Your task to perform on an android device: turn on sleep mode Image 0: 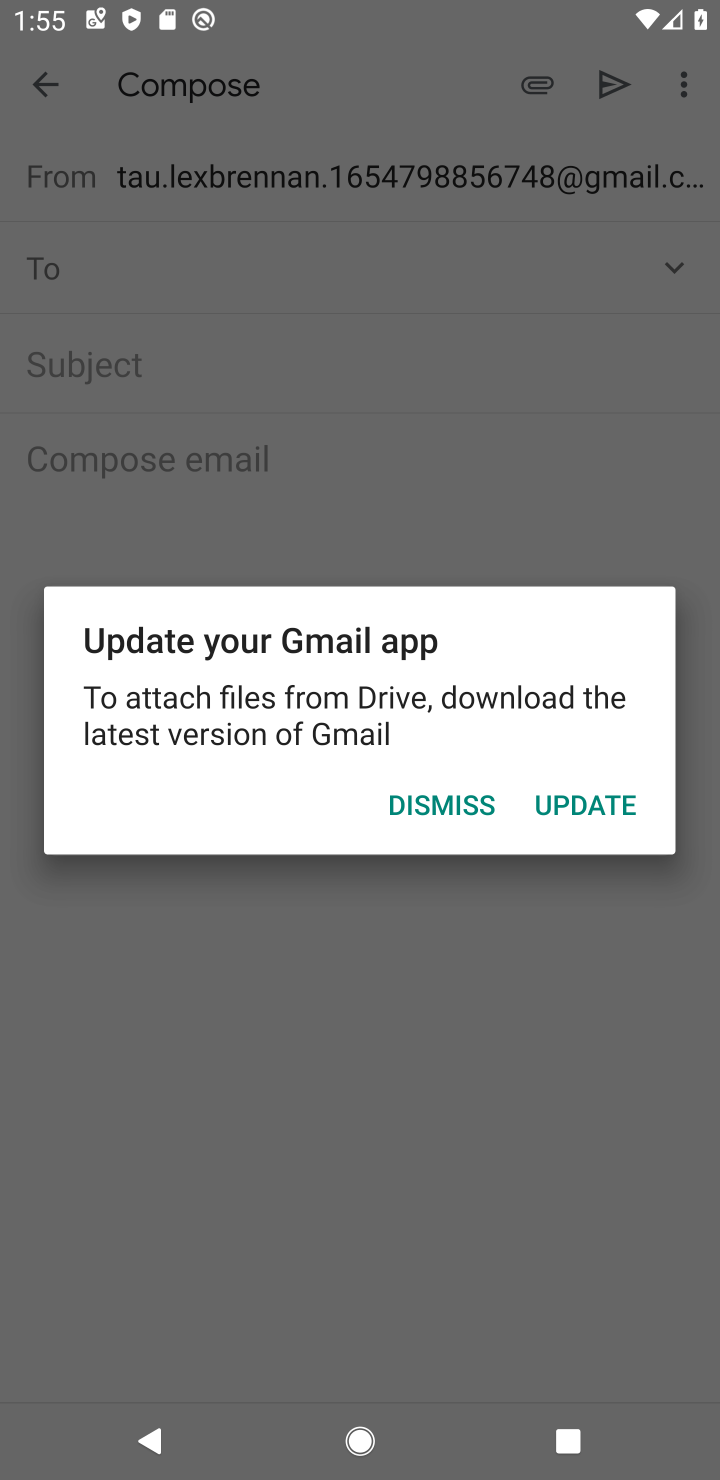
Step 0: press home button
Your task to perform on an android device: turn on sleep mode Image 1: 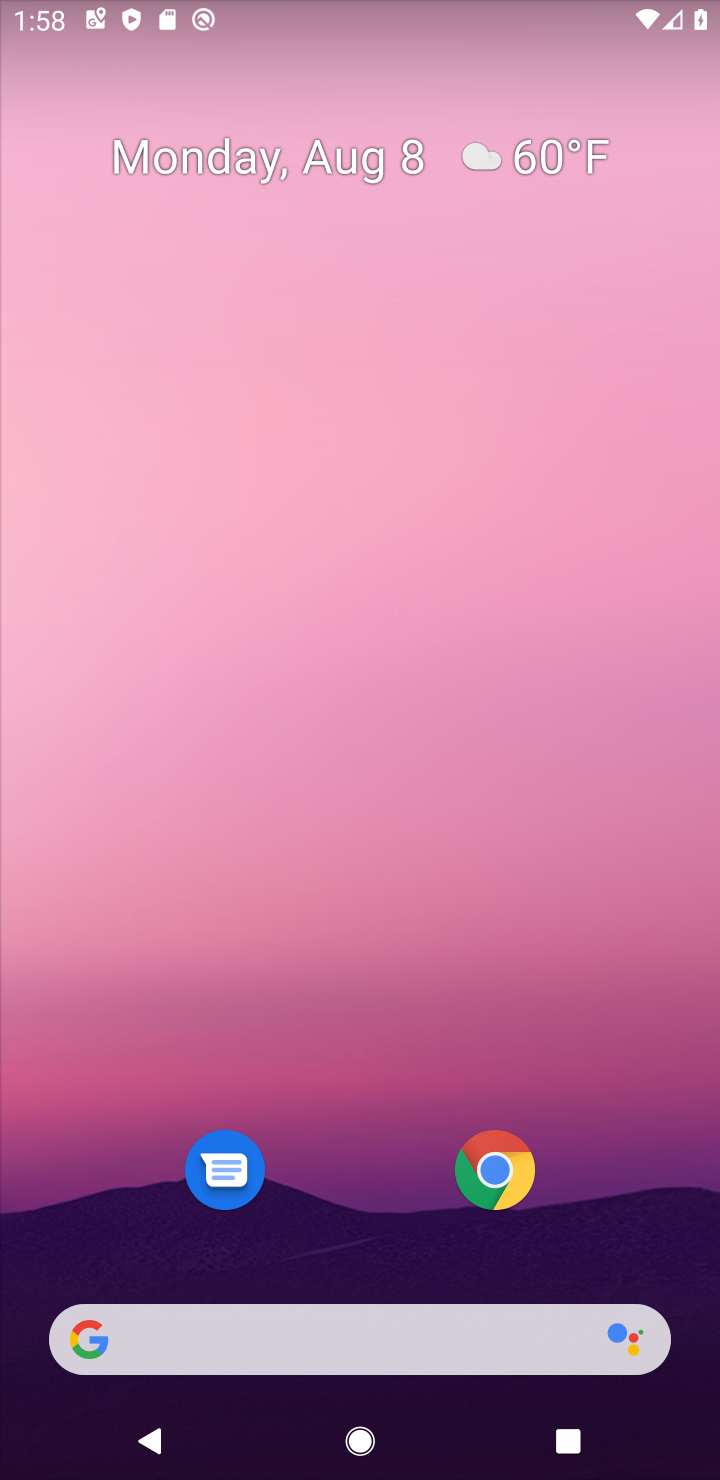
Step 1: drag from (319, 522) to (343, 323)
Your task to perform on an android device: turn on sleep mode Image 2: 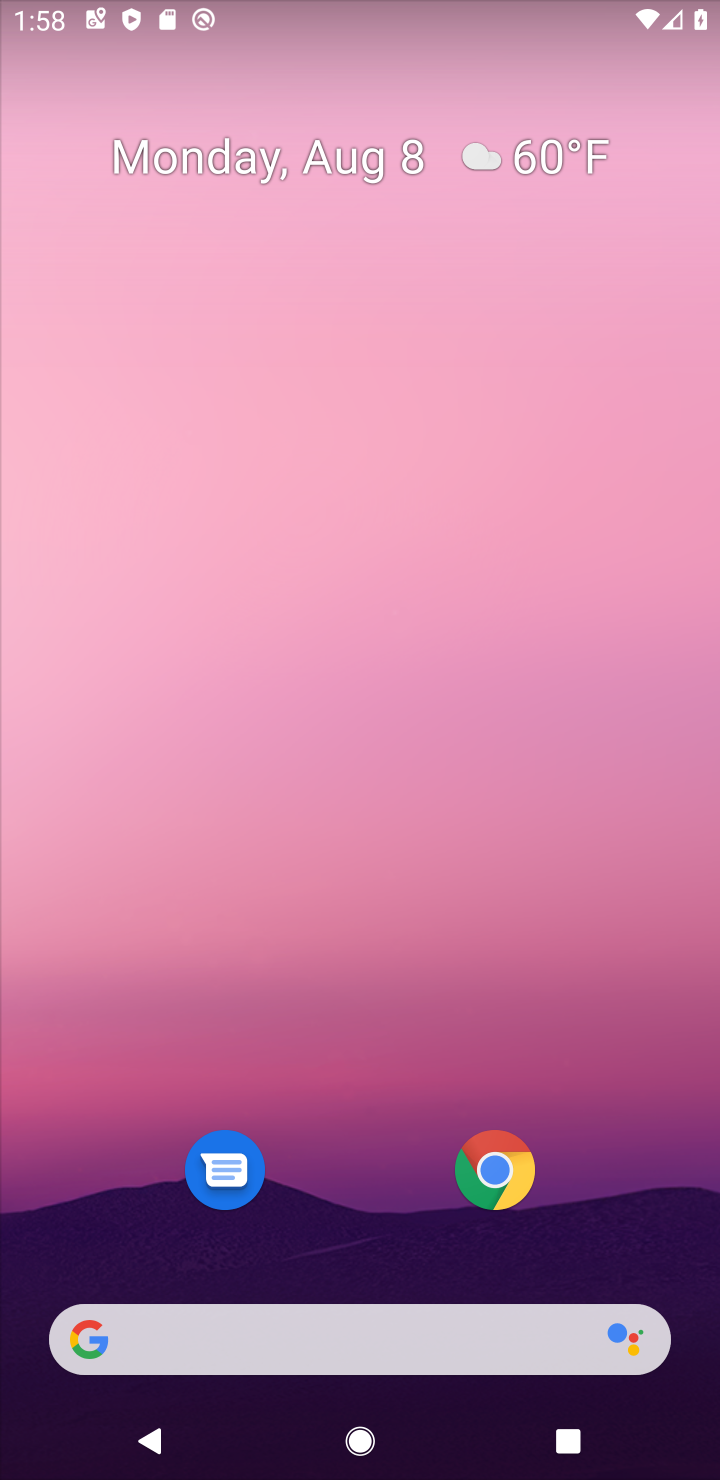
Step 2: drag from (377, 1067) to (323, 104)
Your task to perform on an android device: turn on sleep mode Image 3: 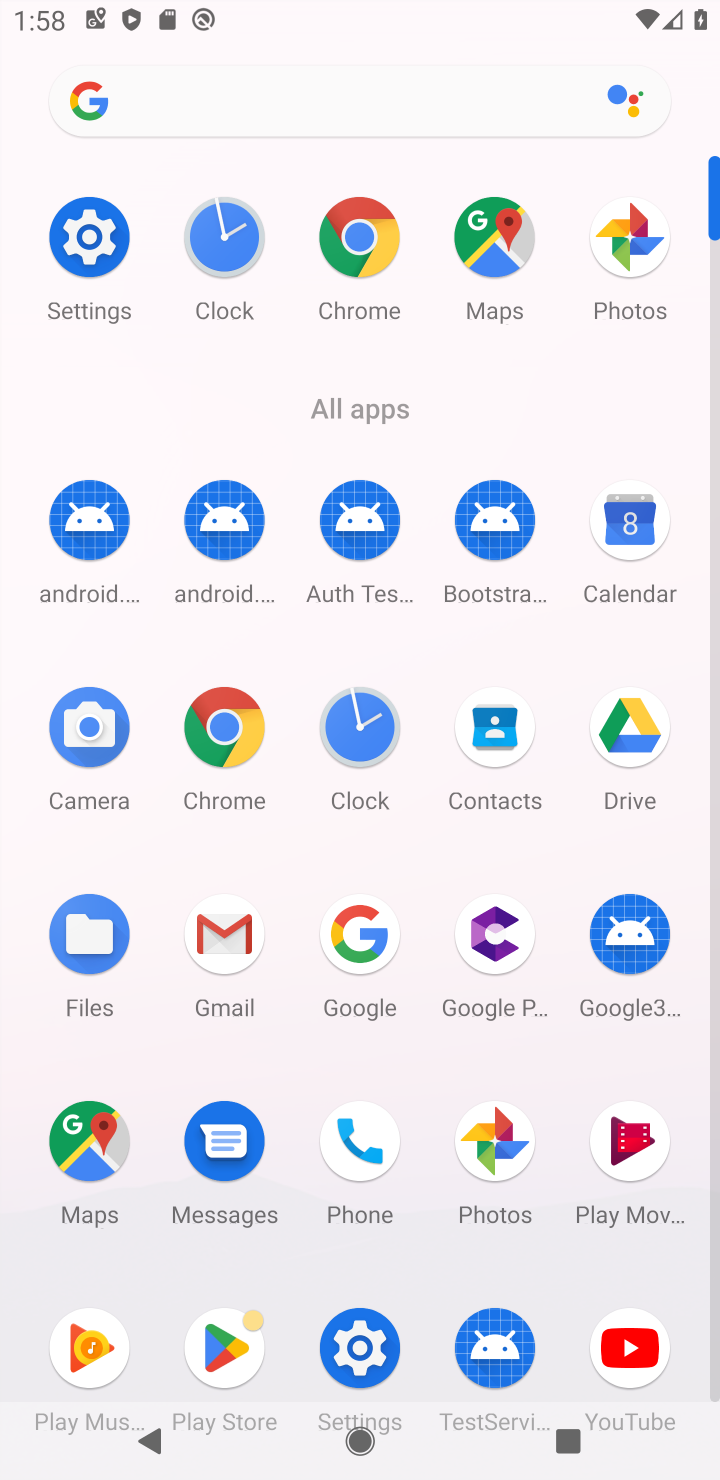
Step 3: click (94, 283)
Your task to perform on an android device: turn on sleep mode Image 4: 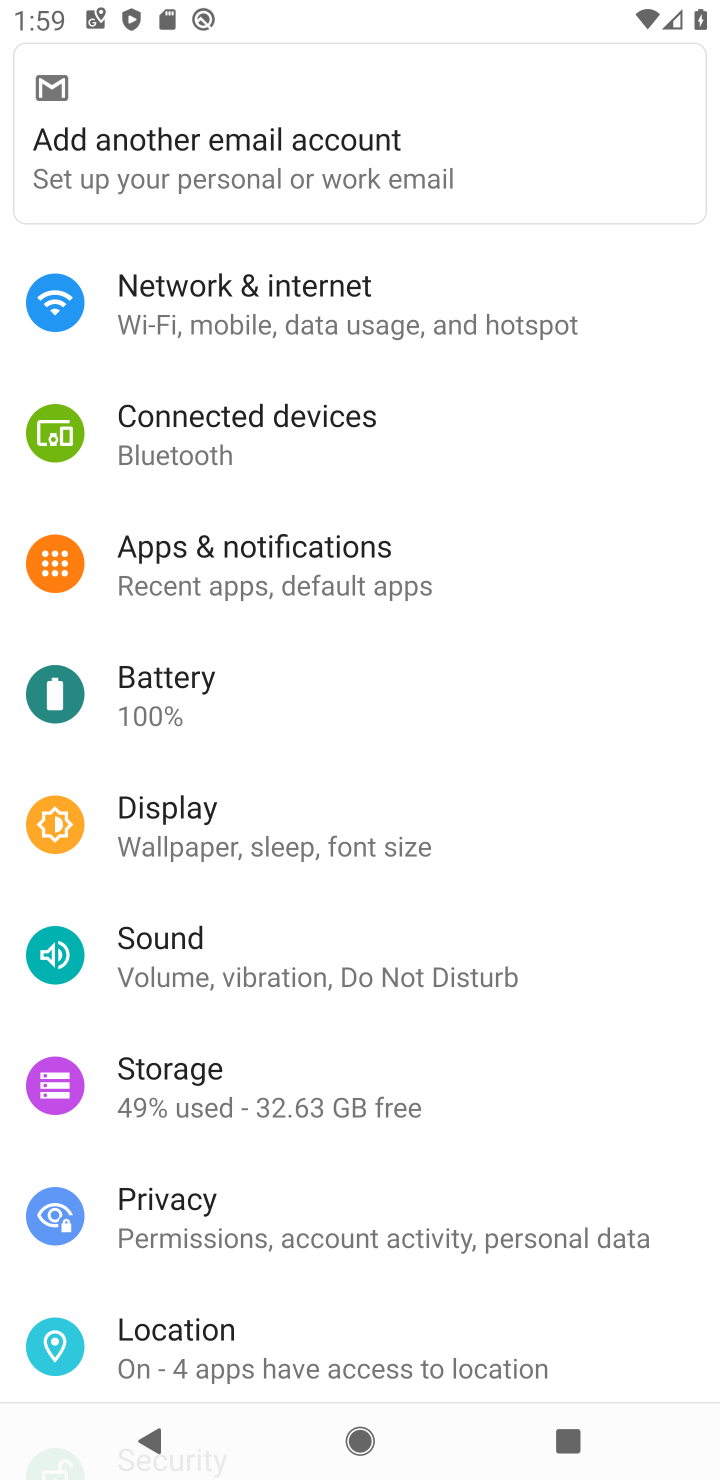
Step 4: click (307, 843)
Your task to perform on an android device: turn on sleep mode Image 5: 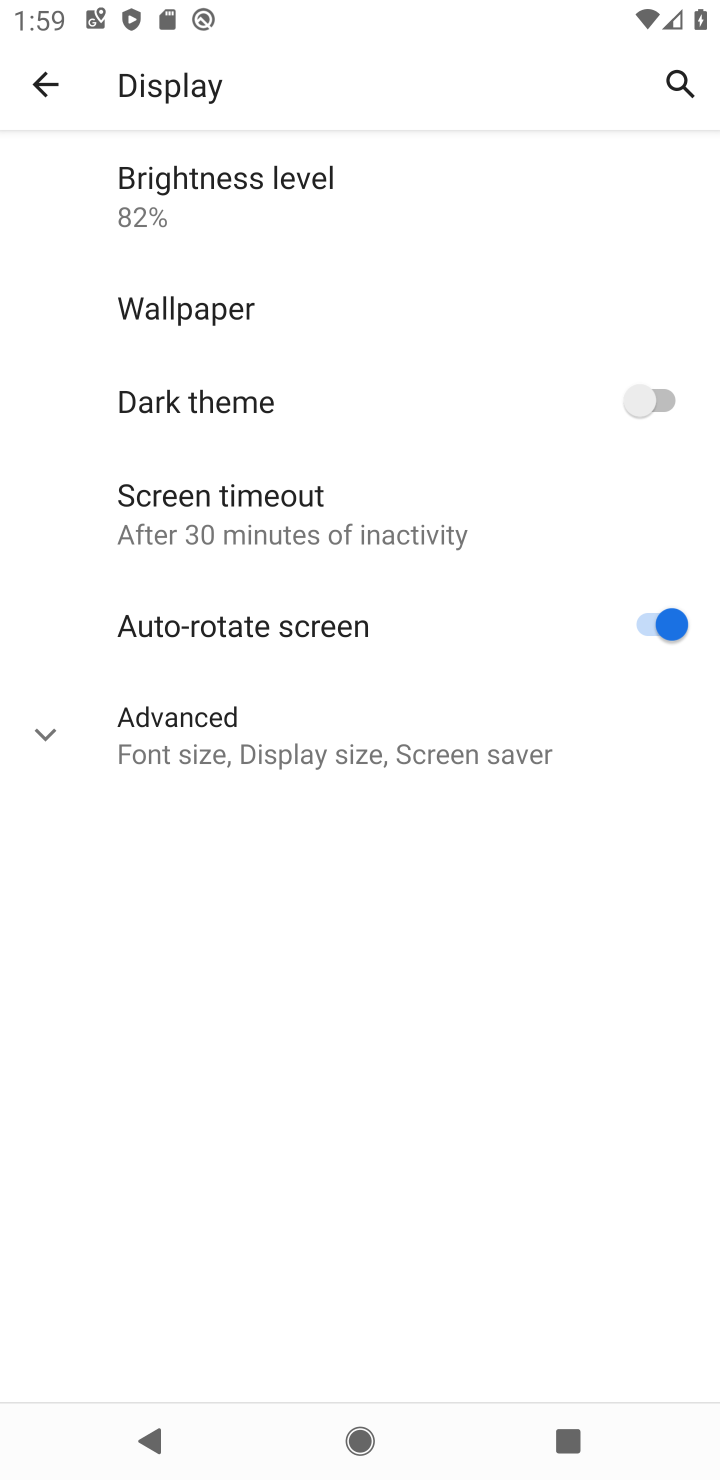
Step 5: click (300, 543)
Your task to perform on an android device: turn on sleep mode Image 6: 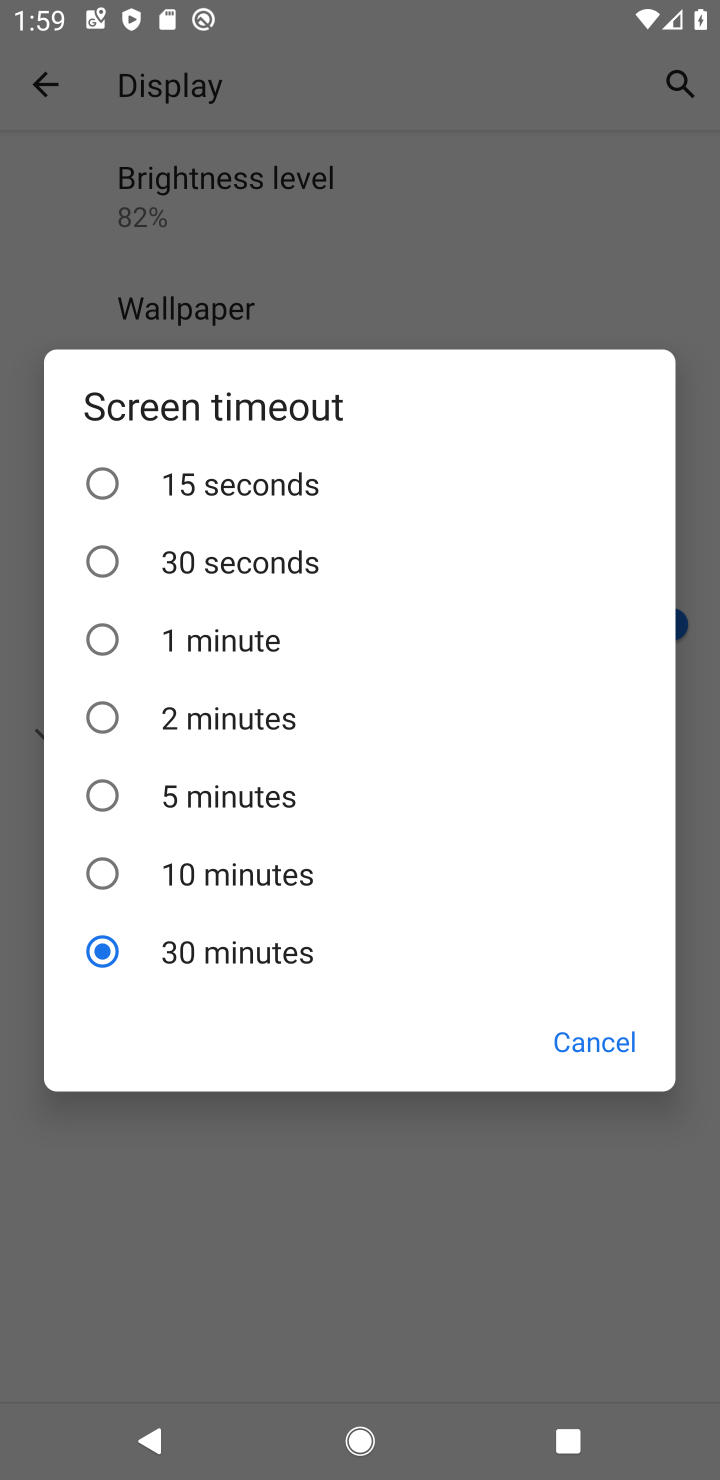
Step 6: click (215, 496)
Your task to perform on an android device: turn on sleep mode Image 7: 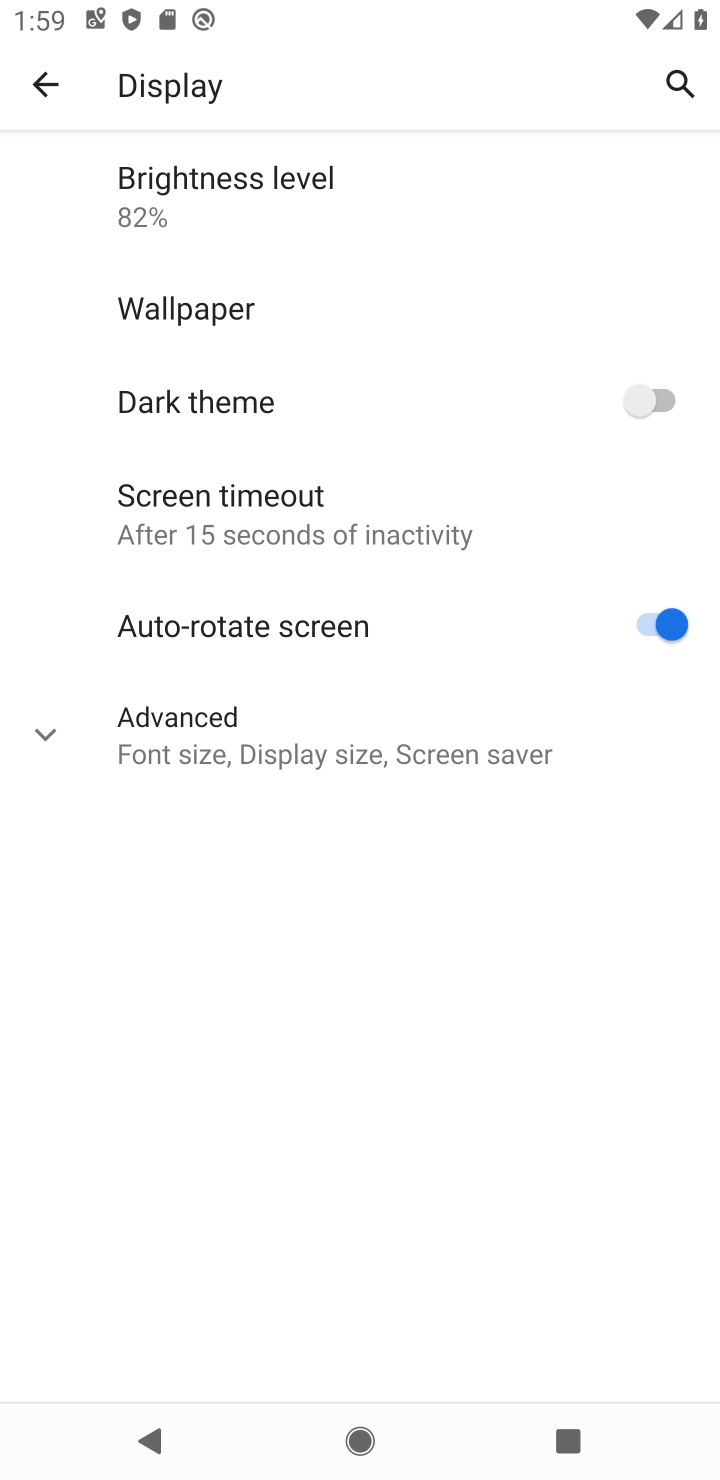
Step 7: task complete